Your task to perform on an android device: Open Yahoo.com Image 0: 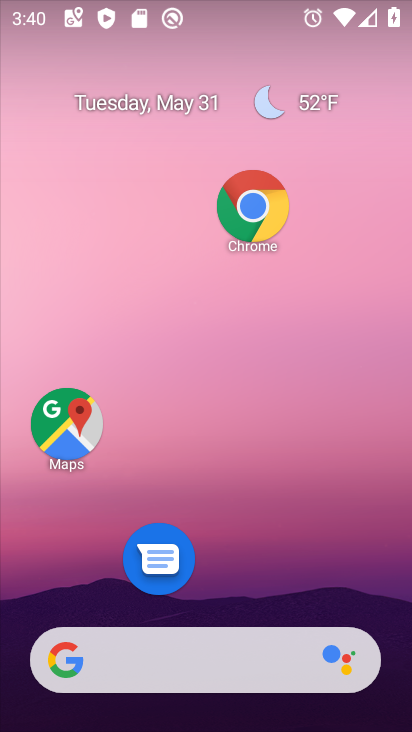
Step 0: click (245, 211)
Your task to perform on an android device: Open Yahoo.com Image 1: 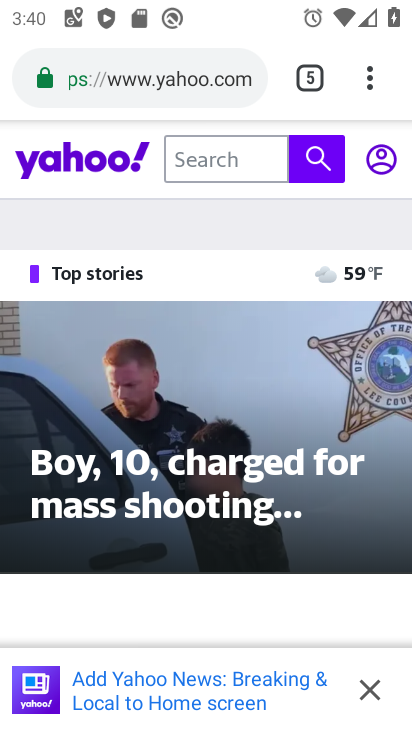
Step 1: task complete